Your task to perform on an android device: open a new tab in the chrome app Image 0: 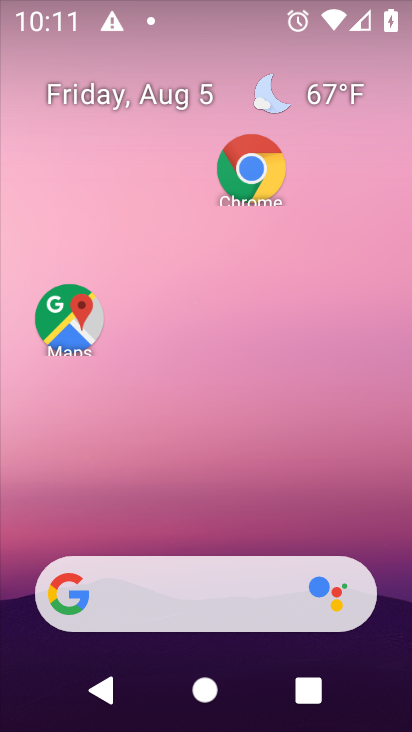
Step 0: click (246, 156)
Your task to perform on an android device: open a new tab in the chrome app Image 1: 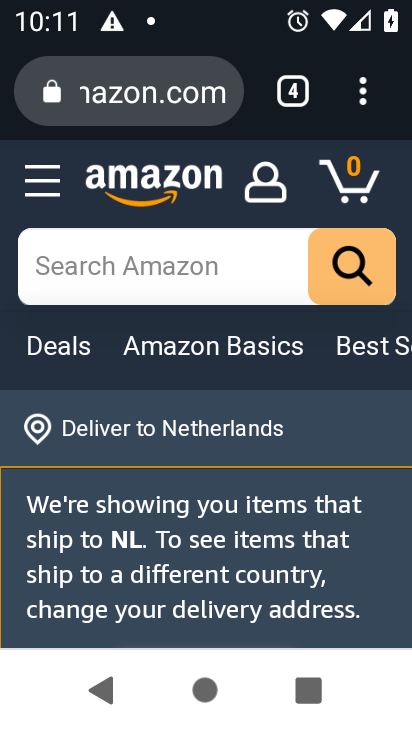
Step 1: click (297, 94)
Your task to perform on an android device: open a new tab in the chrome app Image 2: 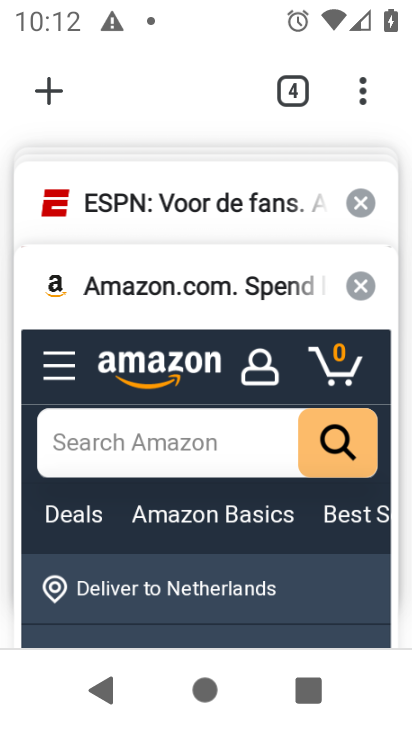
Step 2: click (27, 82)
Your task to perform on an android device: open a new tab in the chrome app Image 3: 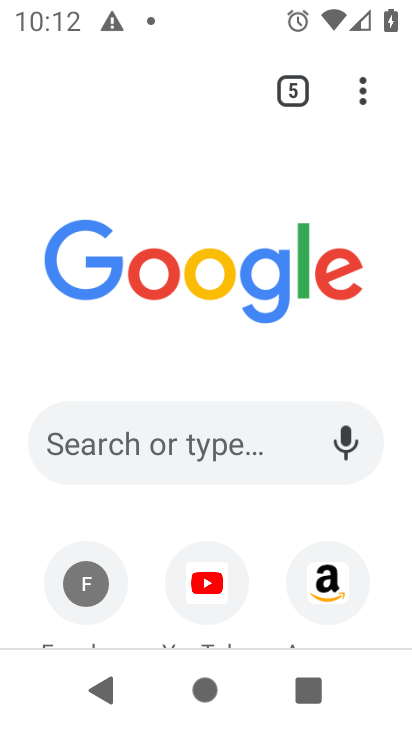
Step 3: task complete